Your task to perform on an android device: Open Google Chrome Image 0: 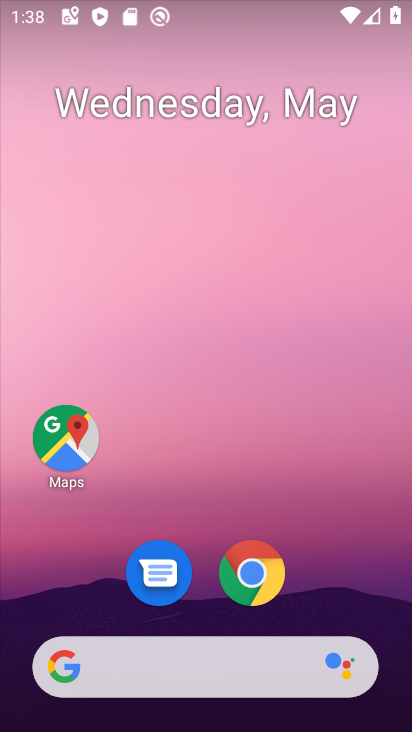
Step 0: click (243, 584)
Your task to perform on an android device: Open Google Chrome Image 1: 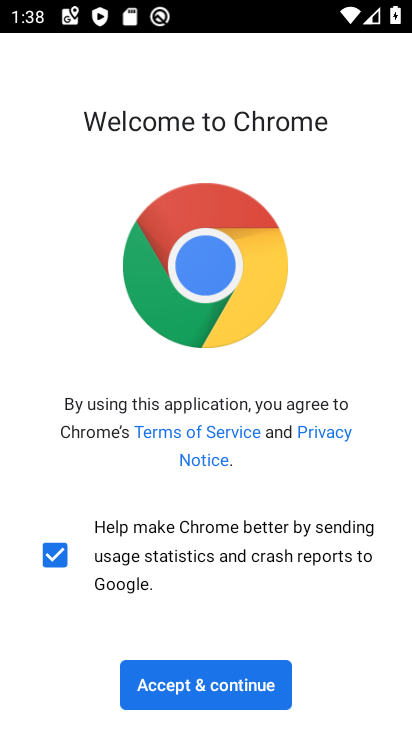
Step 1: click (270, 668)
Your task to perform on an android device: Open Google Chrome Image 2: 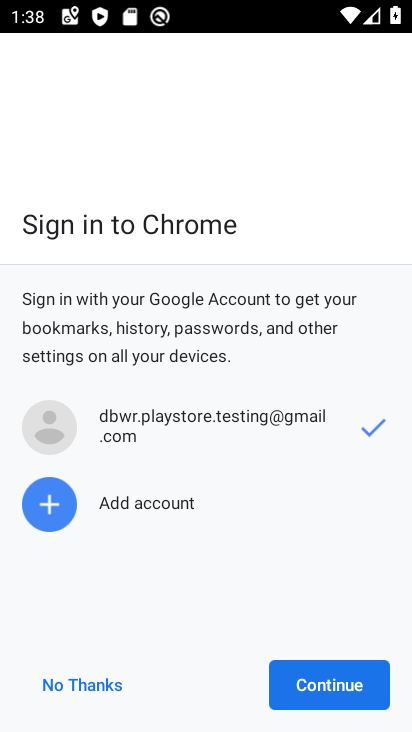
Step 2: click (295, 689)
Your task to perform on an android device: Open Google Chrome Image 3: 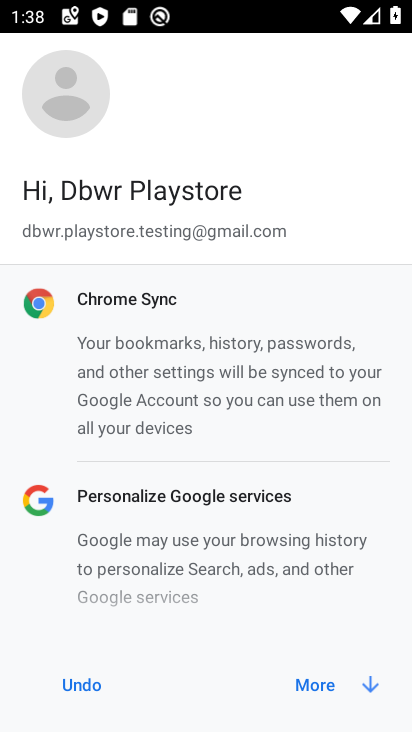
Step 3: click (344, 686)
Your task to perform on an android device: Open Google Chrome Image 4: 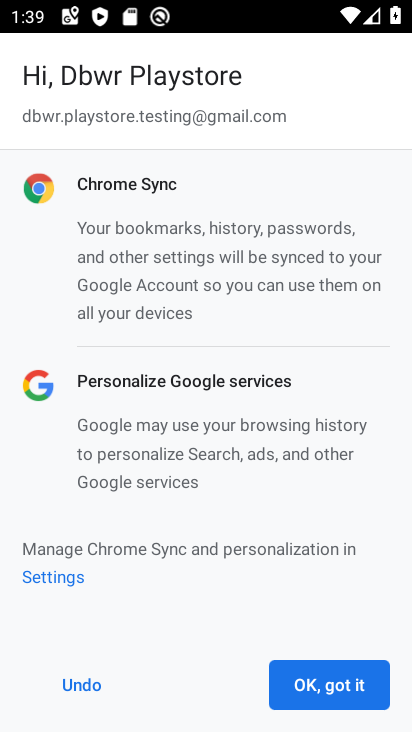
Step 4: click (327, 684)
Your task to perform on an android device: Open Google Chrome Image 5: 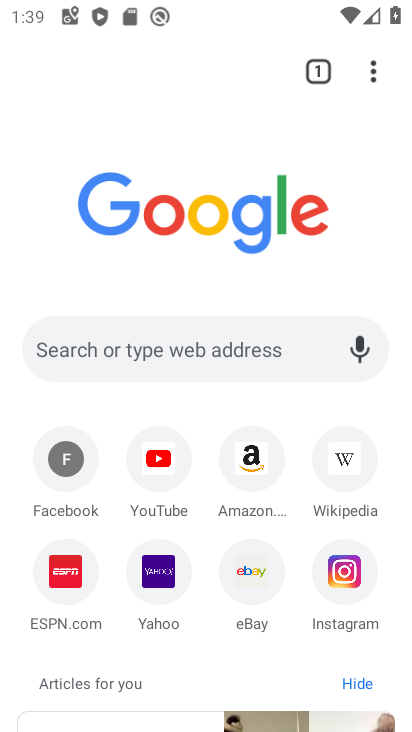
Step 5: task complete